Your task to perform on an android device: visit the assistant section in the google photos Image 0: 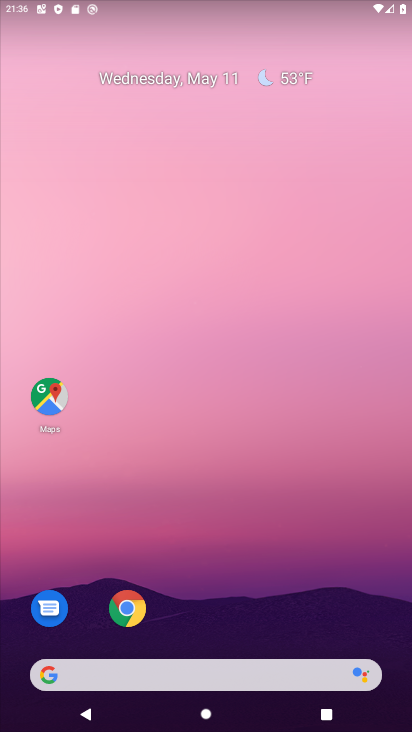
Step 0: drag from (212, 605) to (225, 184)
Your task to perform on an android device: visit the assistant section in the google photos Image 1: 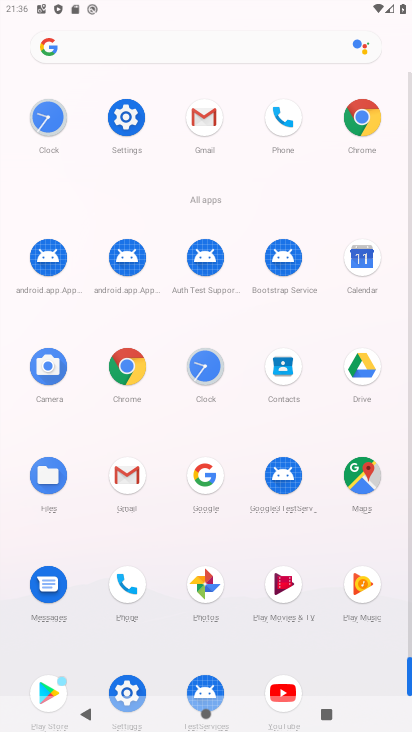
Step 1: click (218, 591)
Your task to perform on an android device: visit the assistant section in the google photos Image 2: 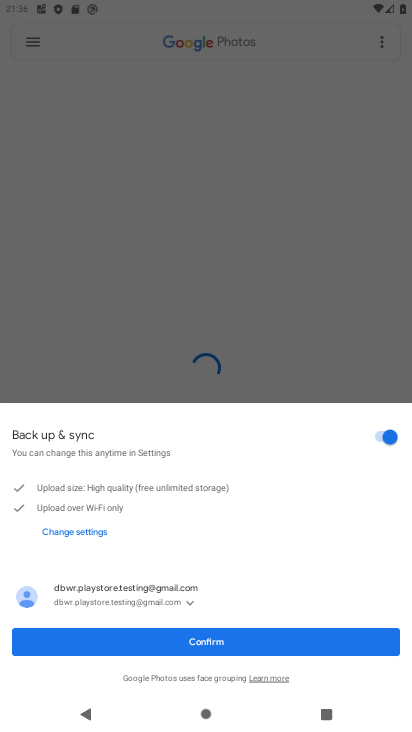
Step 2: click (269, 648)
Your task to perform on an android device: visit the assistant section in the google photos Image 3: 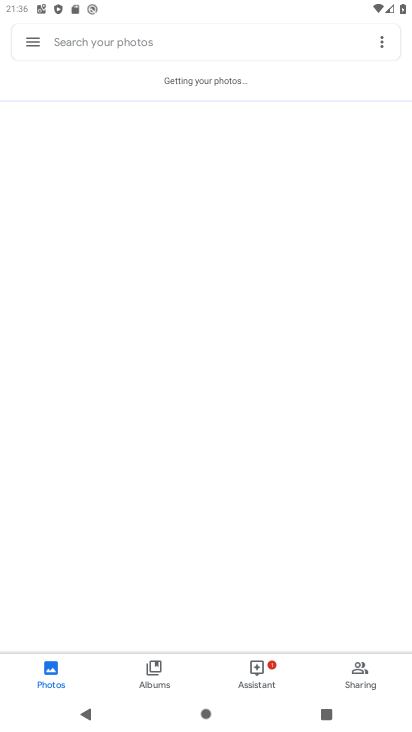
Step 3: click (278, 693)
Your task to perform on an android device: visit the assistant section in the google photos Image 4: 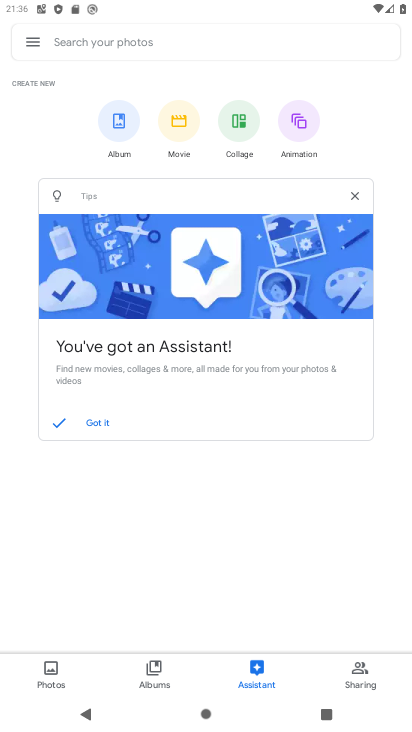
Step 4: click (92, 427)
Your task to perform on an android device: visit the assistant section in the google photos Image 5: 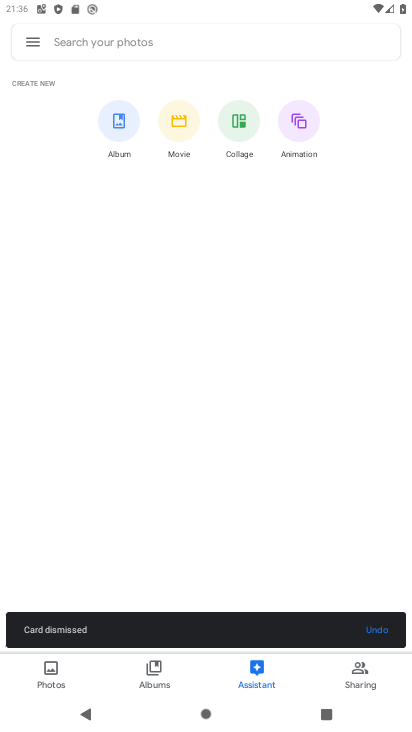
Step 5: task complete